Your task to perform on an android device: turn on javascript in the chrome app Image 0: 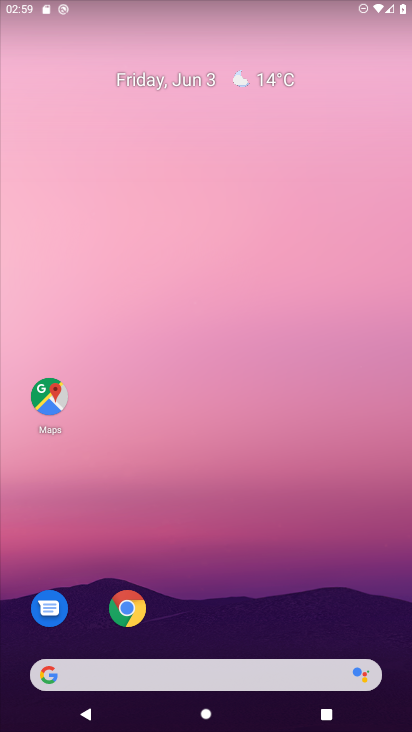
Step 0: click (130, 605)
Your task to perform on an android device: turn on javascript in the chrome app Image 1: 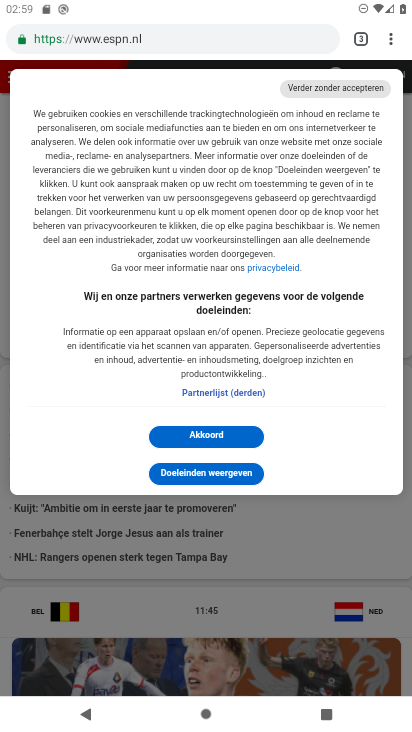
Step 1: drag from (391, 32) to (251, 519)
Your task to perform on an android device: turn on javascript in the chrome app Image 2: 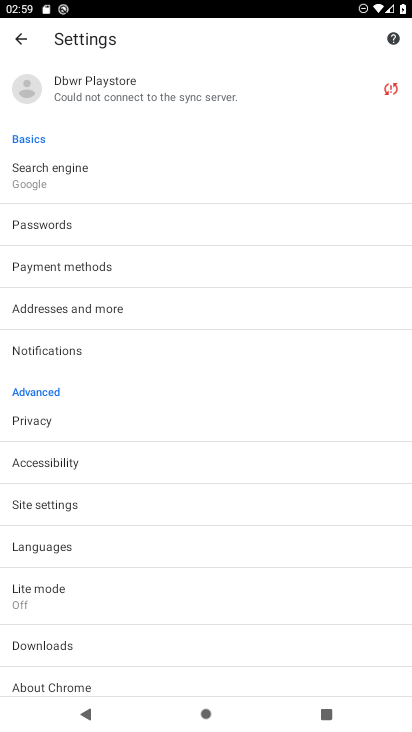
Step 2: drag from (160, 596) to (187, 194)
Your task to perform on an android device: turn on javascript in the chrome app Image 3: 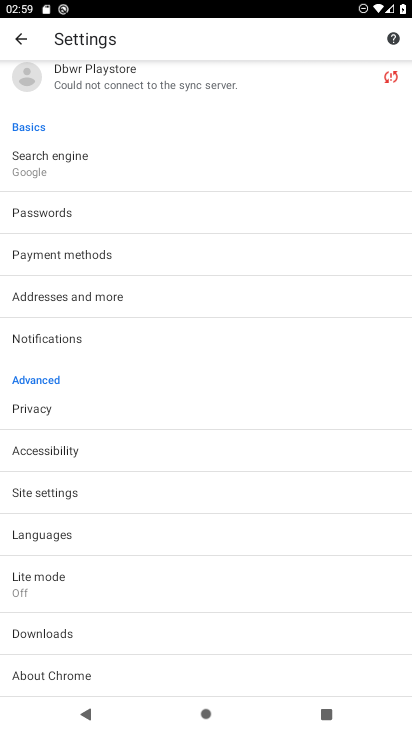
Step 3: click (48, 504)
Your task to perform on an android device: turn on javascript in the chrome app Image 4: 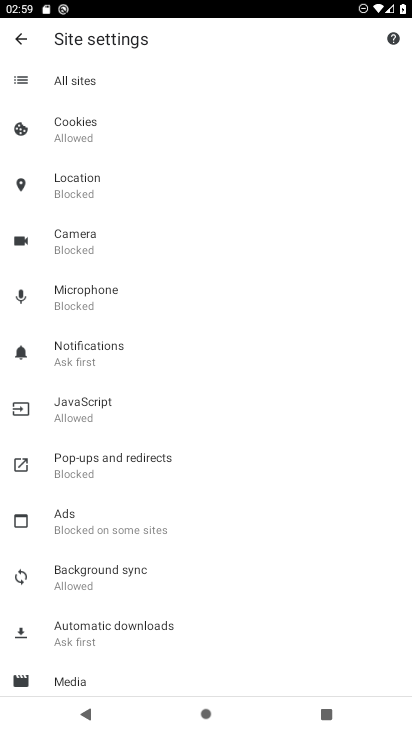
Step 4: click (94, 404)
Your task to perform on an android device: turn on javascript in the chrome app Image 5: 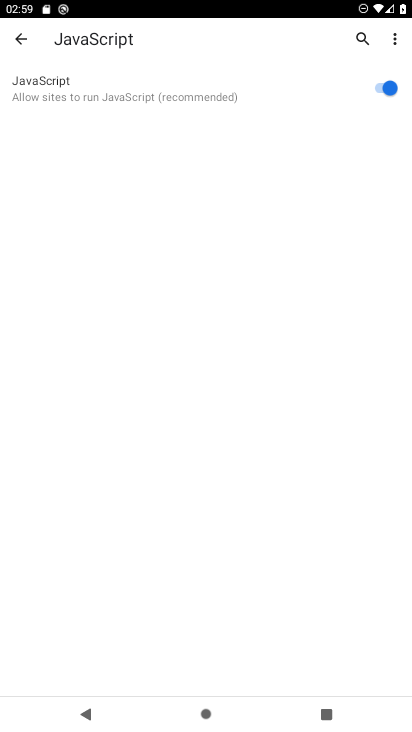
Step 5: task complete